Your task to perform on an android device: Show me productivity apps on the Play Store Image 0: 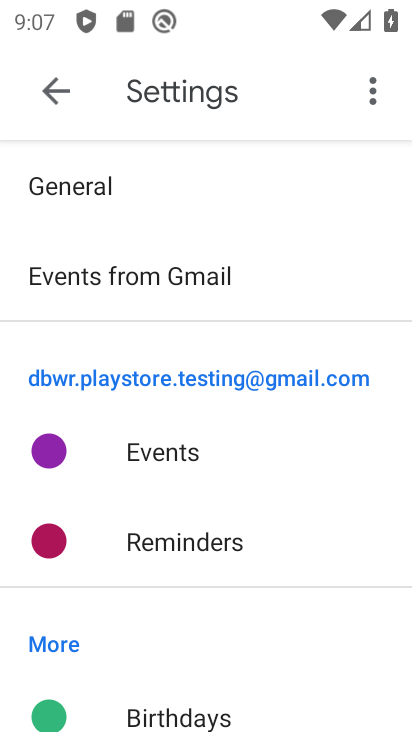
Step 0: press back button
Your task to perform on an android device: Show me productivity apps on the Play Store Image 1: 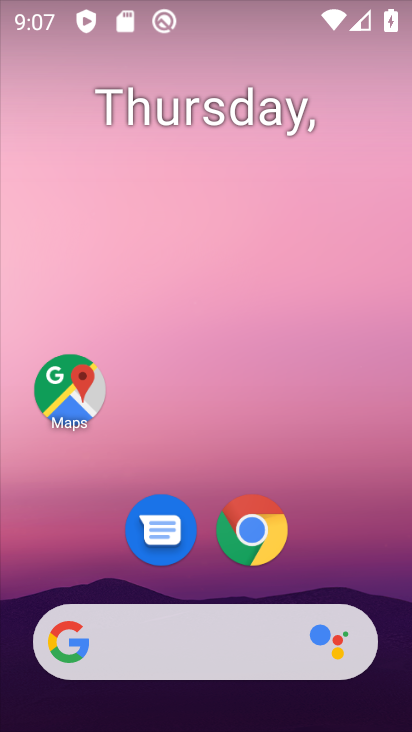
Step 1: drag from (333, 564) to (264, 40)
Your task to perform on an android device: Show me productivity apps on the Play Store Image 2: 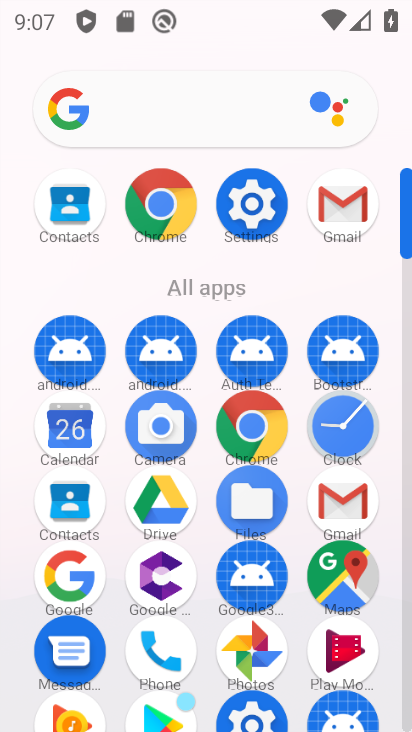
Step 2: drag from (3, 589) to (15, 258)
Your task to perform on an android device: Show me productivity apps on the Play Store Image 3: 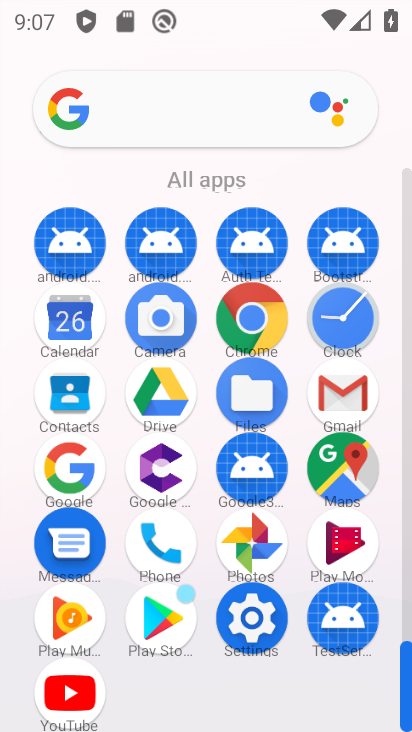
Step 3: click (153, 614)
Your task to perform on an android device: Show me productivity apps on the Play Store Image 4: 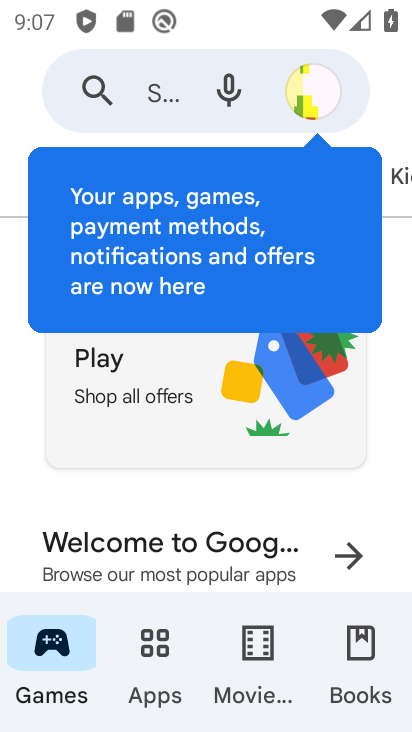
Step 4: click (165, 663)
Your task to perform on an android device: Show me productivity apps on the Play Store Image 5: 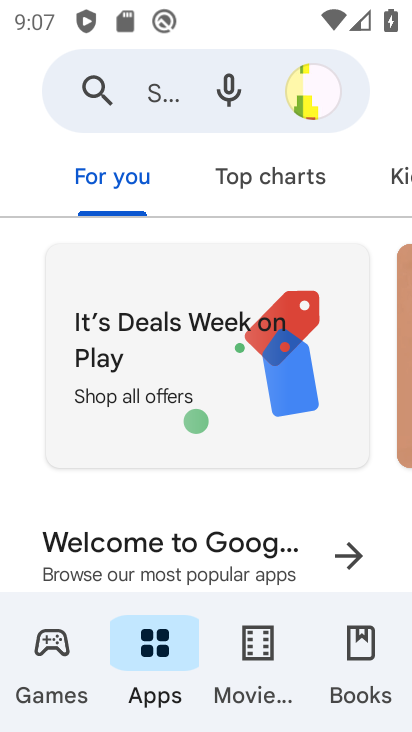
Step 5: drag from (233, 165) to (46, 163)
Your task to perform on an android device: Show me productivity apps on the Play Store Image 6: 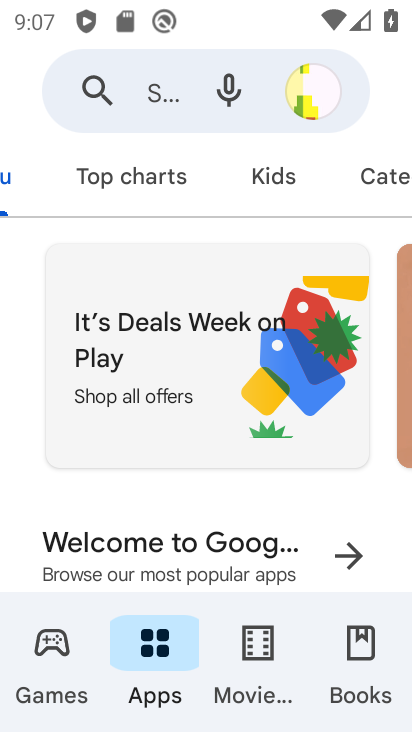
Step 6: drag from (355, 183) to (76, 180)
Your task to perform on an android device: Show me productivity apps on the Play Store Image 7: 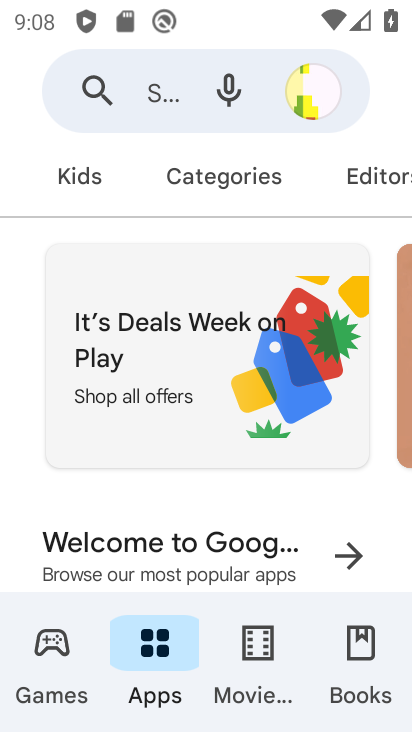
Step 7: click (203, 174)
Your task to perform on an android device: Show me productivity apps on the Play Store Image 8: 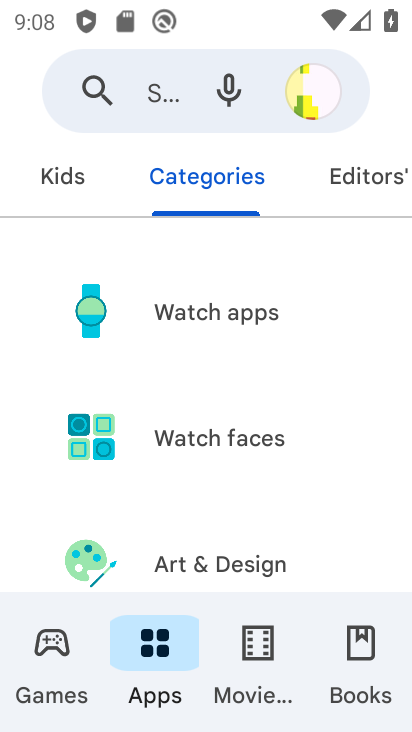
Step 8: drag from (319, 516) to (317, 212)
Your task to perform on an android device: Show me productivity apps on the Play Store Image 9: 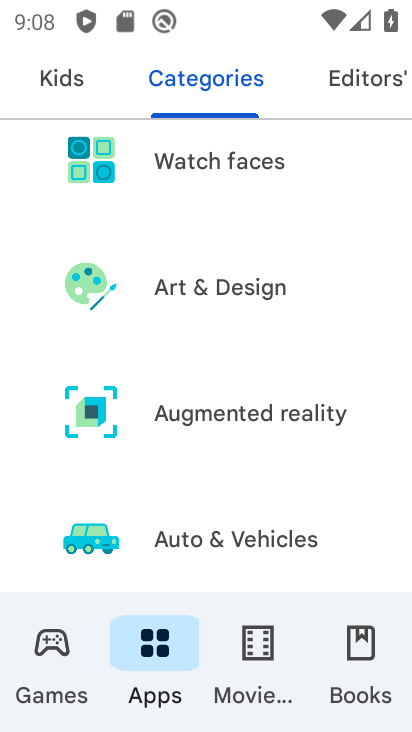
Step 9: drag from (321, 537) to (326, 119)
Your task to perform on an android device: Show me productivity apps on the Play Store Image 10: 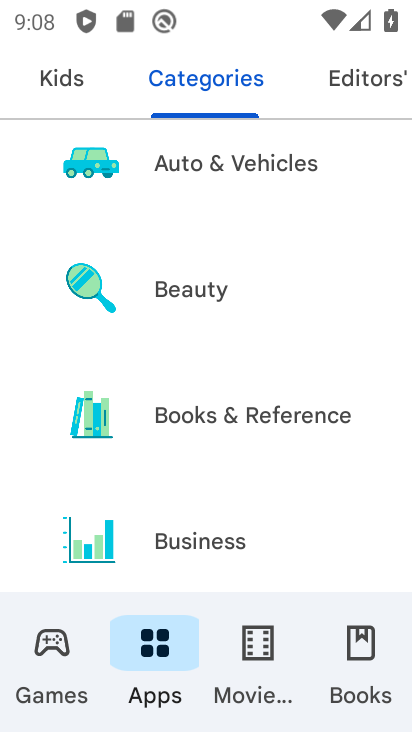
Step 10: drag from (293, 527) to (290, 129)
Your task to perform on an android device: Show me productivity apps on the Play Store Image 11: 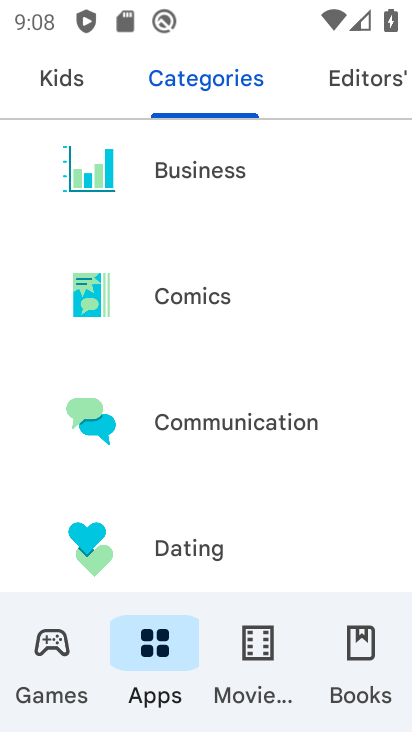
Step 11: drag from (289, 549) to (297, 127)
Your task to perform on an android device: Show me productivity apps on the Play Store Image 12: 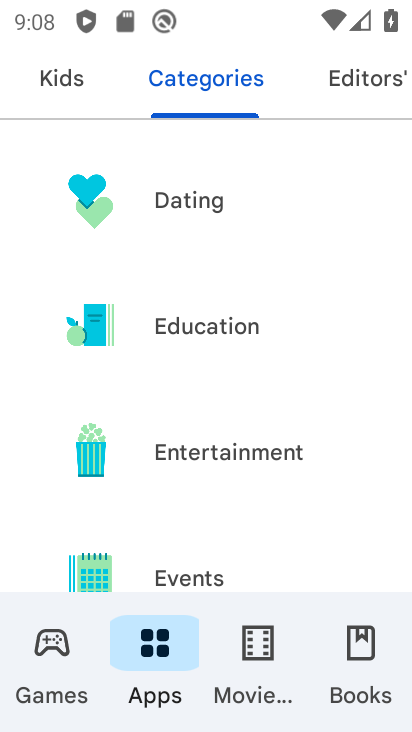
Step 12: drag from (260, 476) to (279, 152)
Your task to perform on an android device: Show me productivity apps on the Play Store Image 13: 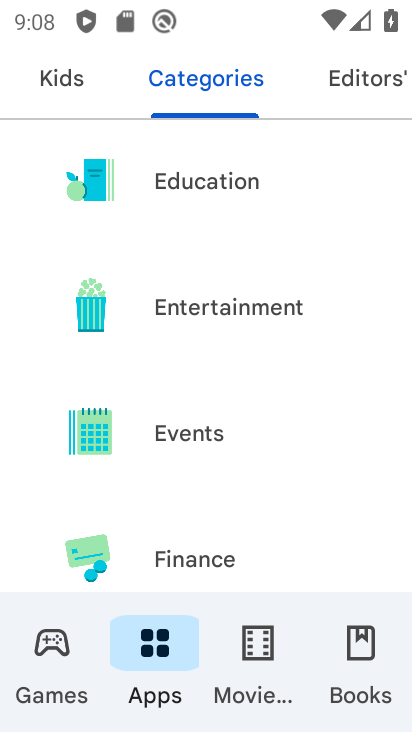
Step 13: drag from (249, 540) to (257, 176)
Your task to perform on an android device: Show me productivity apps on the Play Store Image 14: 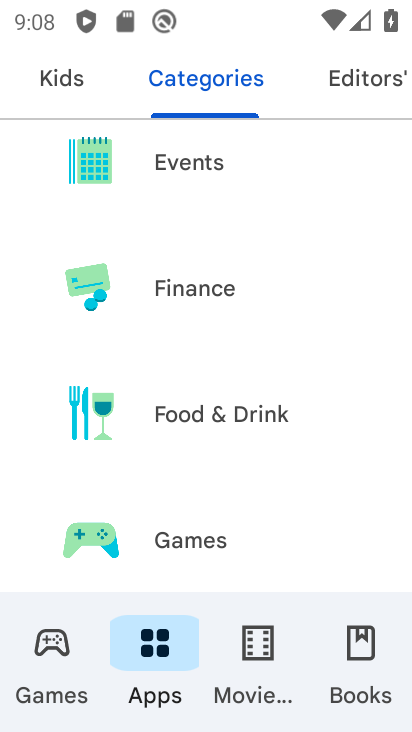
Step 14: drag from (267, 511) to (275, 153)
Your task to perform on an android device: Show me productivity apps on the Play Store Image 15: 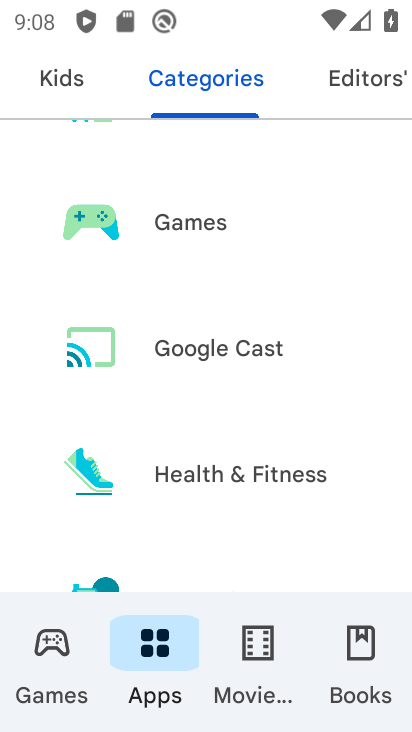
Step 15: drag from (272, 489) to (269, 170)
Your task to perform on an android device: Show me productivity apps on the Play Store Image 16: 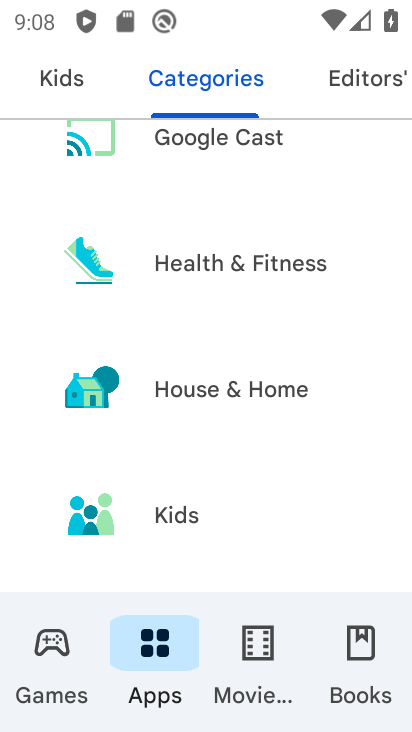
Step 16: drag from (247, 490) to (285, 128)
Your task to perform on an android device: Show me productivity apps on the Play Store Image 17: 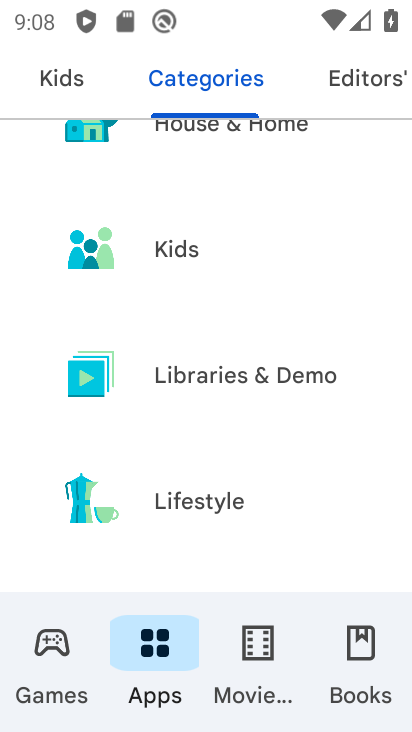
Step 17: drag from (294, 479) to (305, 132)
Your task to perform on an android device: Show me productivity apps on the Play Store Image 18: 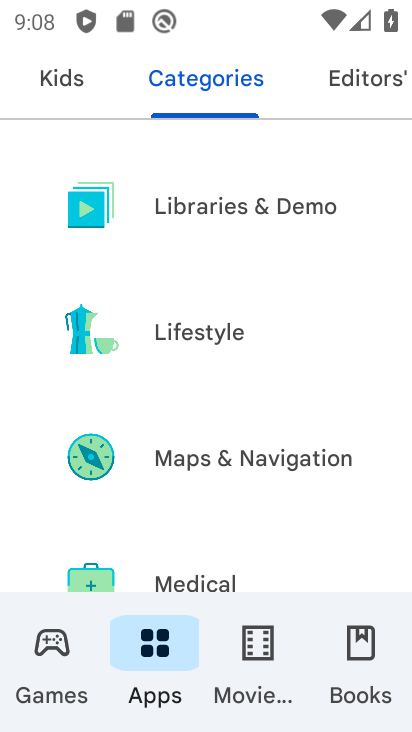
Step 18: drag from (295, 496) to (295, 154)
Your task to perform on an android device: Show me productivity apps on the Play Store Image 19: 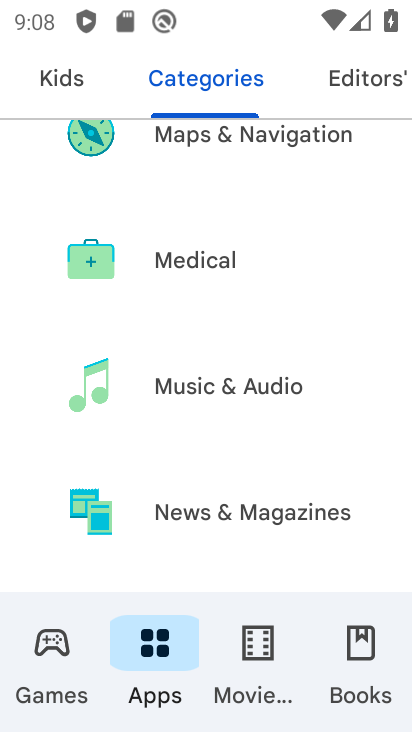
Step 19: drag from (331, 483) to (321, 155)
Your task to perform on an android device: Show me productivity apps on the Play Store Image 20: 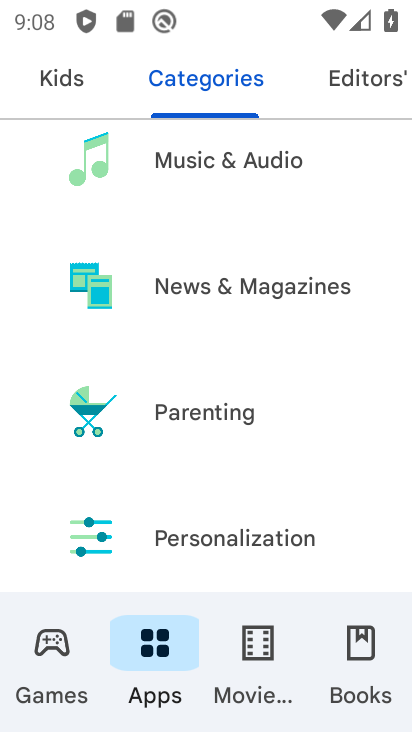
Step 20: drag from (314, 486) to (316, 219)
Your task to perform on an android device: Show me productivity apps on the Play Store Image 21: 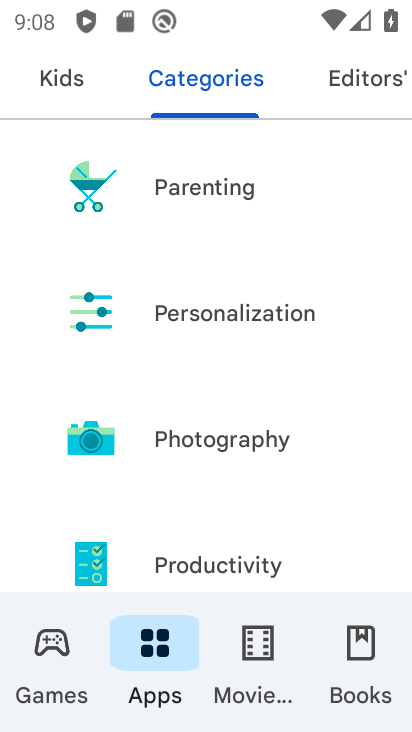
Step 21: click (270, 550)
Your task to perform on an android device: Show me productivity apps on the Play Store Image 22: 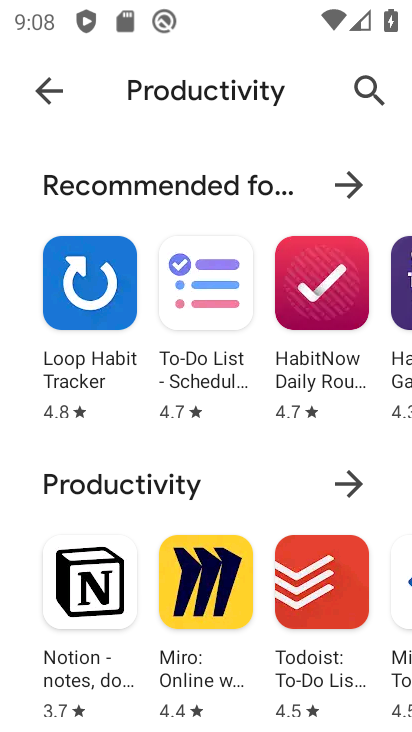
Step 22: task complete